Your task to perform on an android device: turn pop-ups on in chrome Image 0: 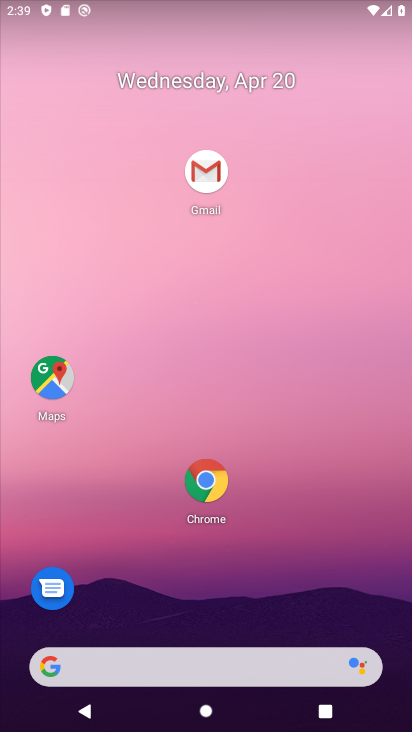
Step 0: click (198, 511)
Your task to perform on an android device: turn pop-ups on in chrome Image 1: 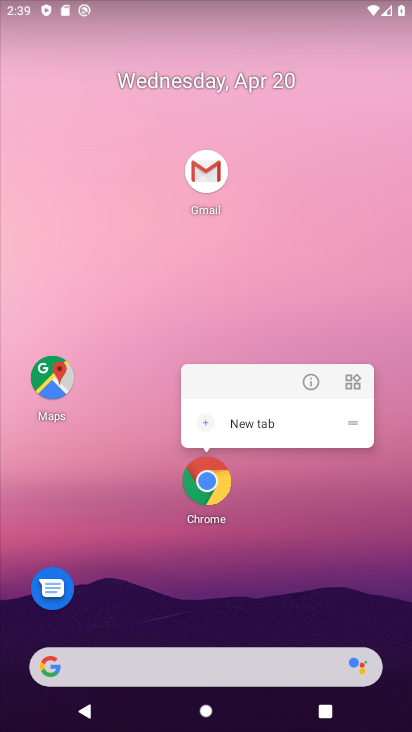
Step 1: drag from (198, 508) to (171, 216)
Your task to perform on an android device: turn pop-ups on in chrome Image 2: 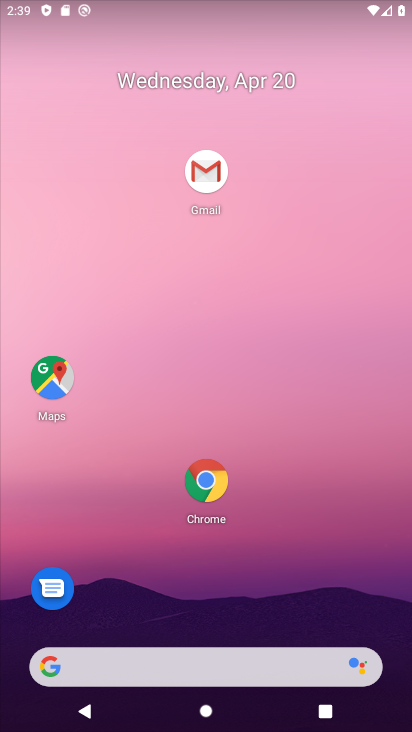
Step 2: drag from (327, 723) to (142, 51)
Your task to perform on an android device: turn pop-ups on in chrome Image 3: 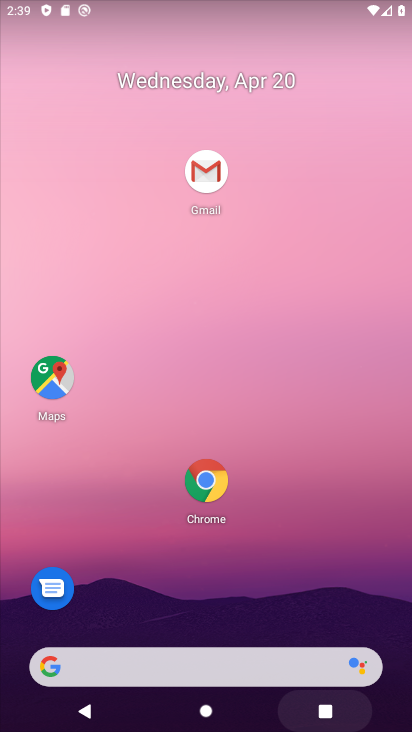
Step 3: drag from (313, 586) to (113, 122)
Your task to perform on an android device: turn pop-ups on in chrome Image 4: 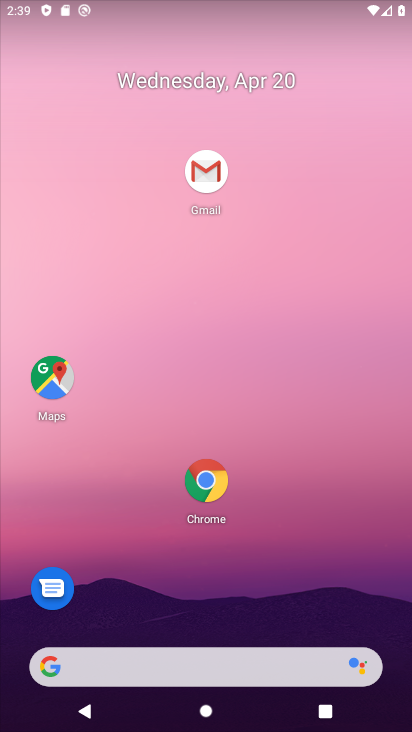
Step 4: drag from (171, 597) to (38, 295)
Your task to perform on an android device: turn pop-ups on in chrome Image 5: 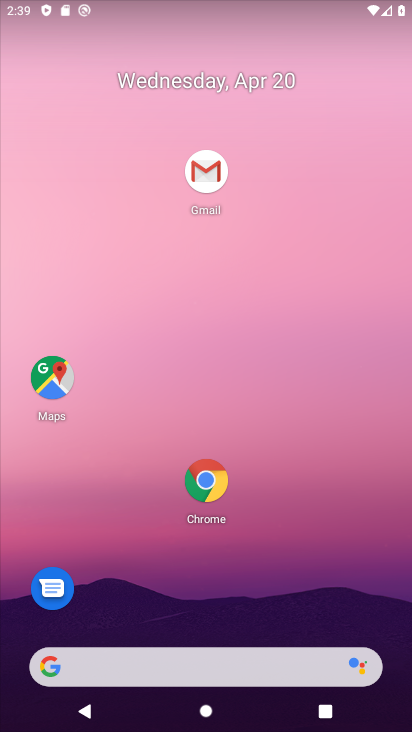
Step 5: drag from (230, 589) to (141, 232)
Your task to perform on an android device: turn pop-ups on in chrome Image 6: 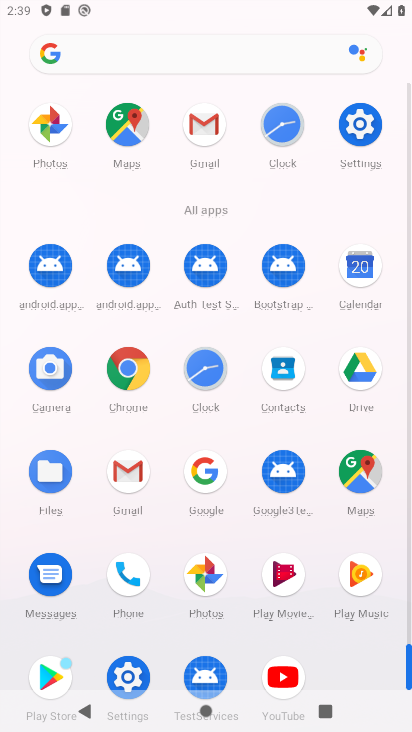
Step 6: click (125, 382)
Your task to perform on an android device: turn pop-ups on in chrome Image 7: 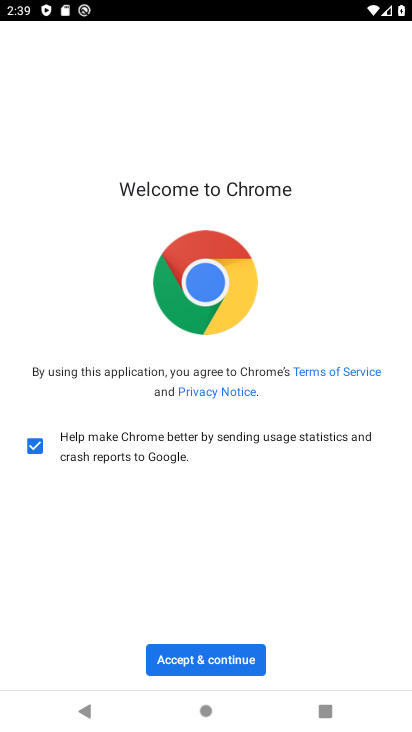
Step 7: click (208, 661)
Your task to perform on an android device: turn pop-ups on in chrome Image 8: 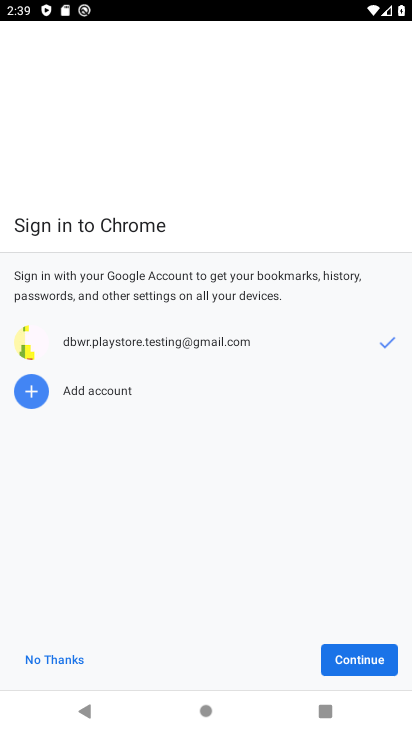
Step 8: click (350, 680)
Your task to perform on an android device: turn pop-ups on in chrome Image 9: 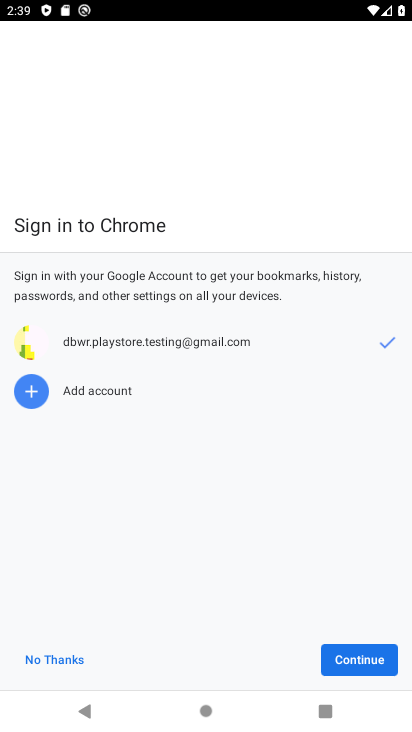
Step 9: click (364, 669)
Your task to perform on an android device: turn pop-ups on in chrome Image 10: 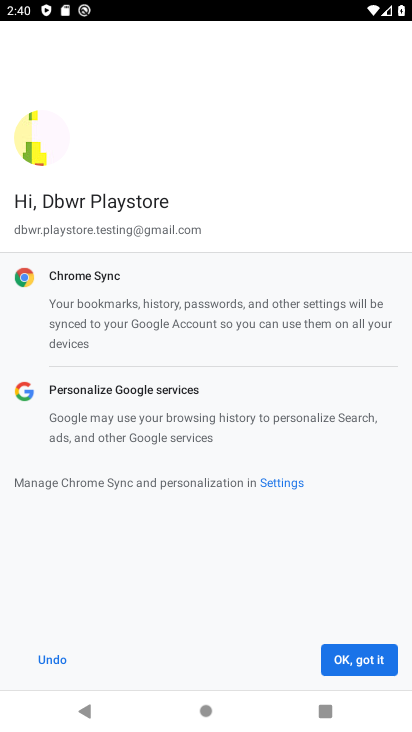
Step 10: click (351, 673)
Your task to perform on an android device: turn pop-ups on in chrome Image 11: 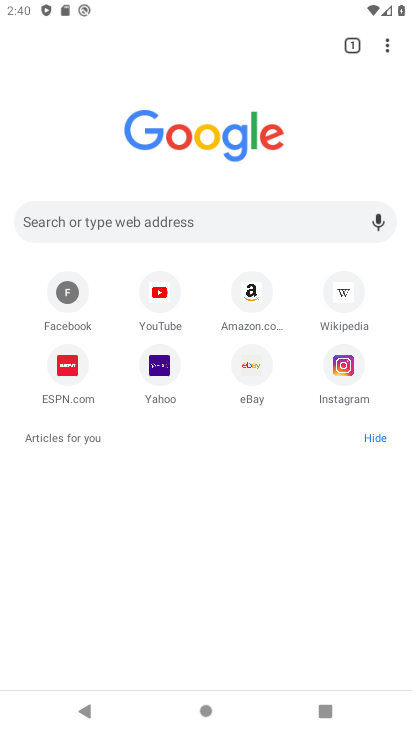
Step 11: drag from (383, 47) to (220, 404)
Your task to perform on an android device: turn pop-ups on in chrome Image 12: 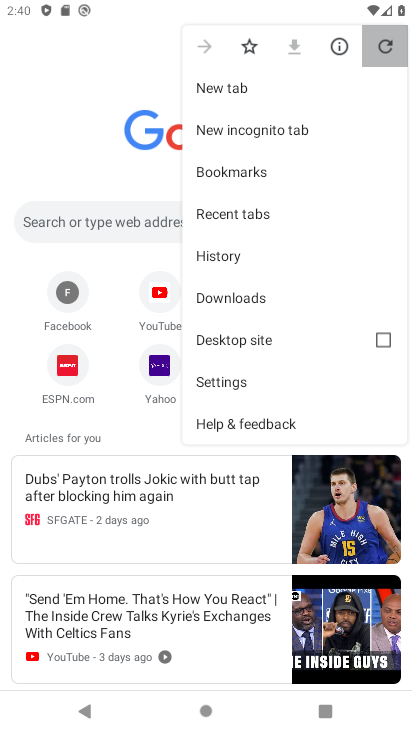
Step 12: click (217, 375)
Your task to perform on an android device: turn pop-ups on in chrome Image 13: 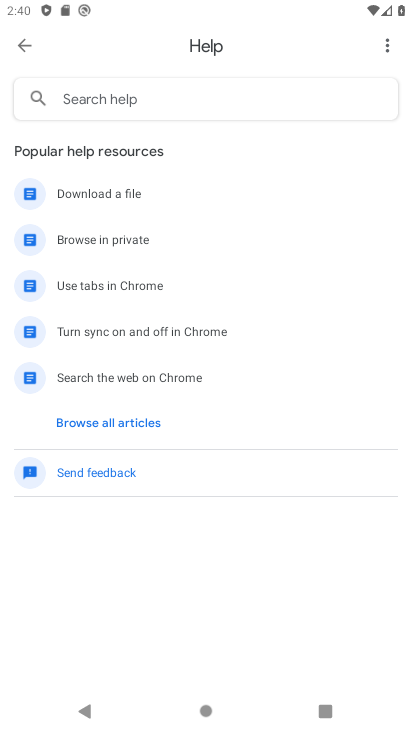
Step 13: press back button
Your task to perform on an android device: turn pop-ups on in chrome Image 14: 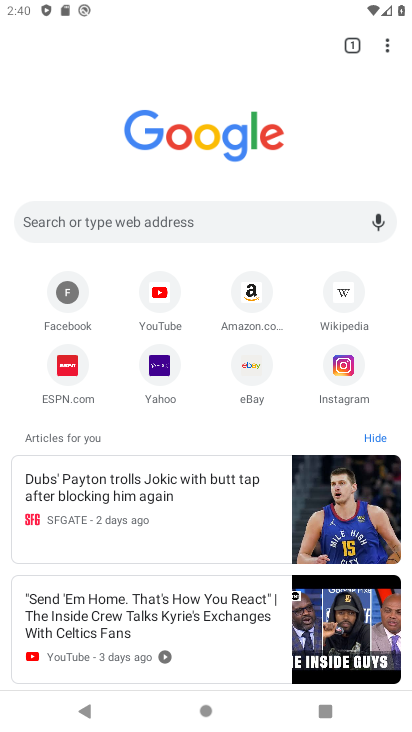
Step 14: click (386, 44)
Your task to perform on an android device: turn pop-ups on in chrome Image 15: 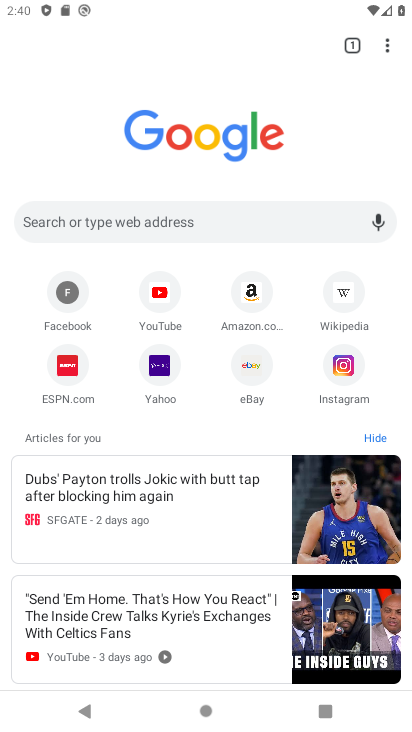
Step 15: click (386, 44)
Your task to perform on an android device: turn pop-ups on in chrome Image 16: 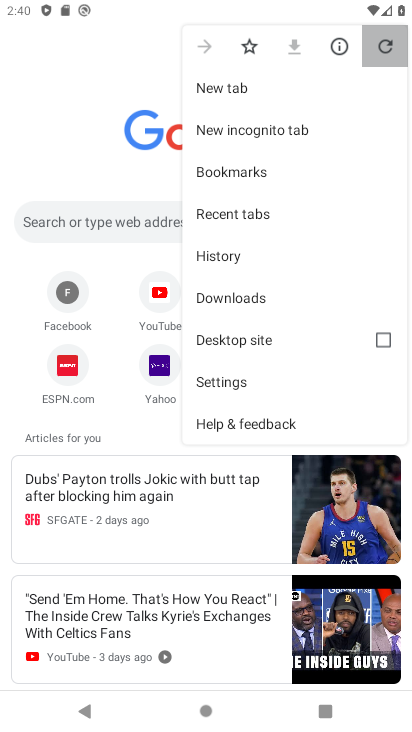
Step 16: click (394, 31)
Your task to perform on an android device: turn pop-ups on in chrome Image 17: 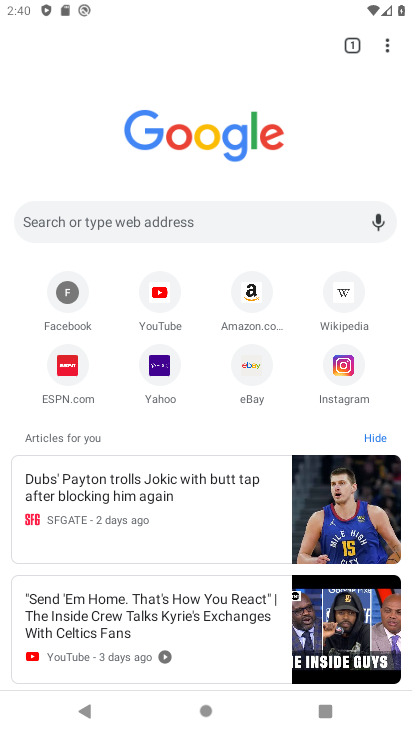
Step 17: click (384, 38)
Your task to perform on an android device: turn pop-ups on in chrome Image 18: 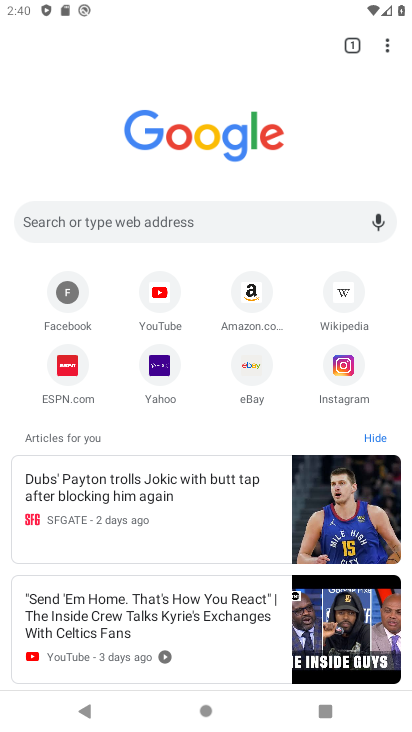
Step 18: drag from (383, 37) to (219, 386)
Your task to perform on an android device: turn pop-ups on in chrome Image 19: 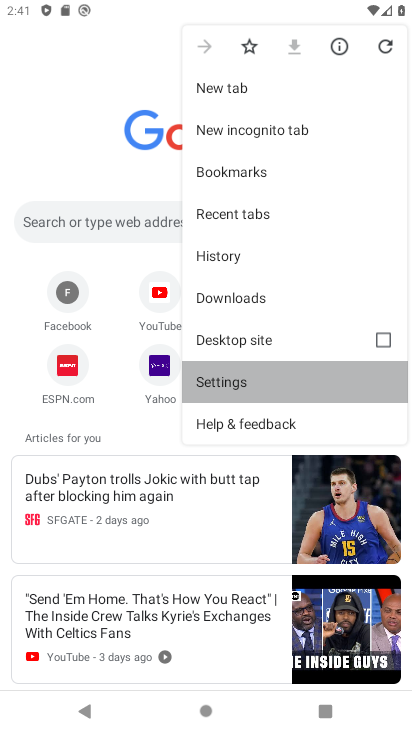
Step 19: click (217, 376)
Your task to perform on an android device: turn pop-ups on in chrome Image 20: 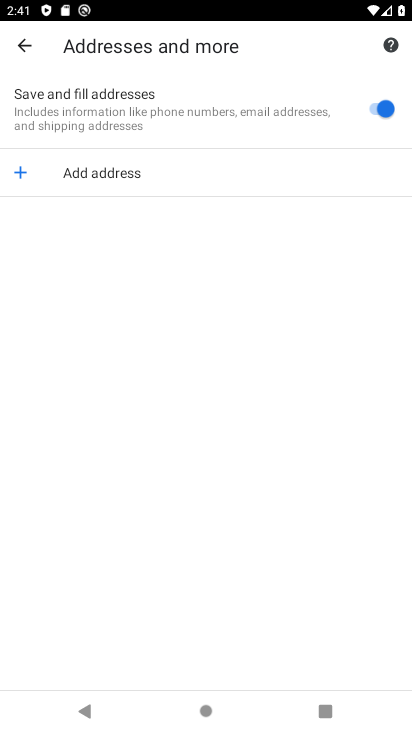
Step 20: click (13, 47)
Your task to perform on an android device: turn pop-ups on in chrome Image 21: 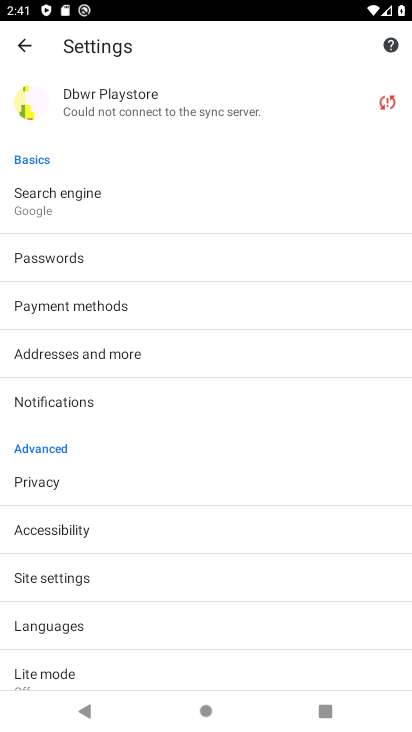
Step 21: click (50, 573)
Your task to perform on an android device: turn pop-ups on in chrome Image 22: 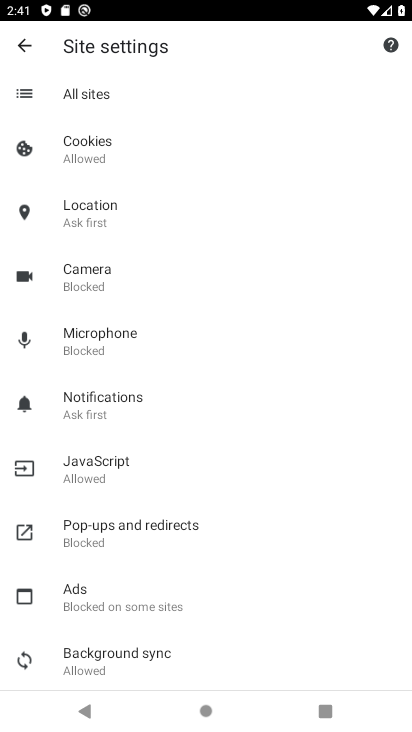
Step 22: click (103, 528)
Your task to perform on an android device: turn pop-ups on in chrome Image 23: 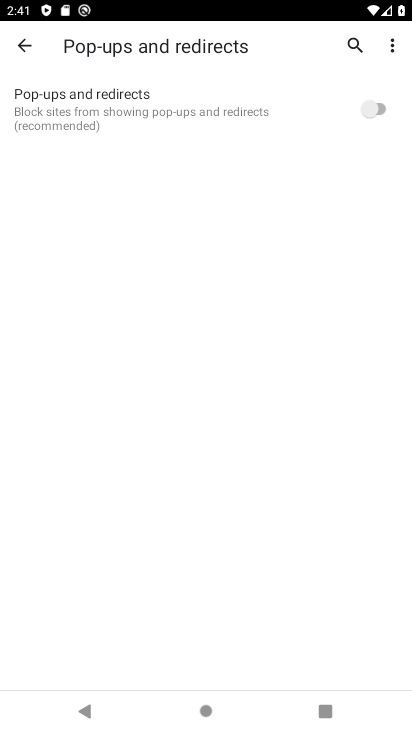
Step 23: click (376, 109)
Your task to perform on an android device: turn pop-ups on in chrome Image 24: 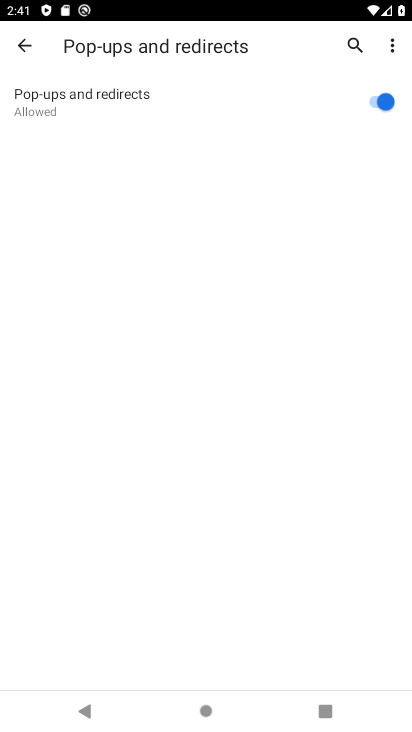
Step 24: task complete